Your task to perform on an android device: add a contact Image 0: 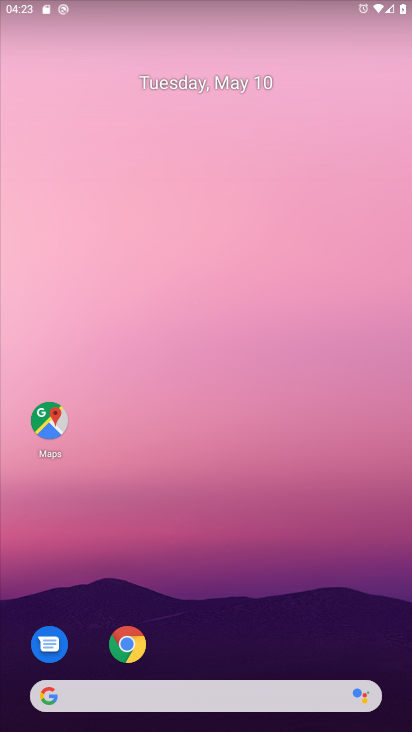
Step 0: drag from (222, 650) to (203, 265)
Your task to perform on an android device: add a contact Image 1: 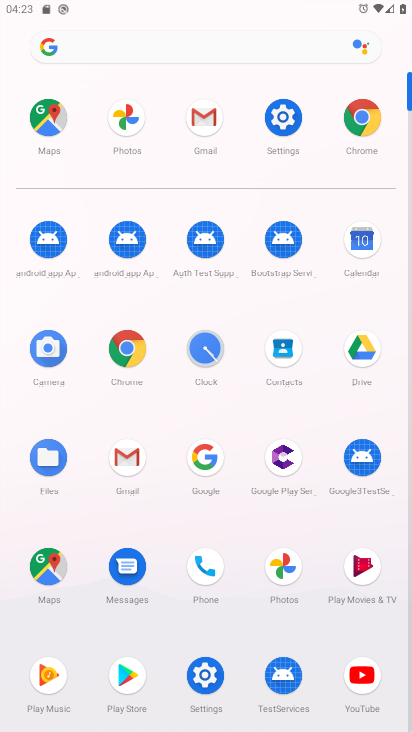
Step 1: click (279, 345)
Your task to perform on an android device: add a contact Image 2: 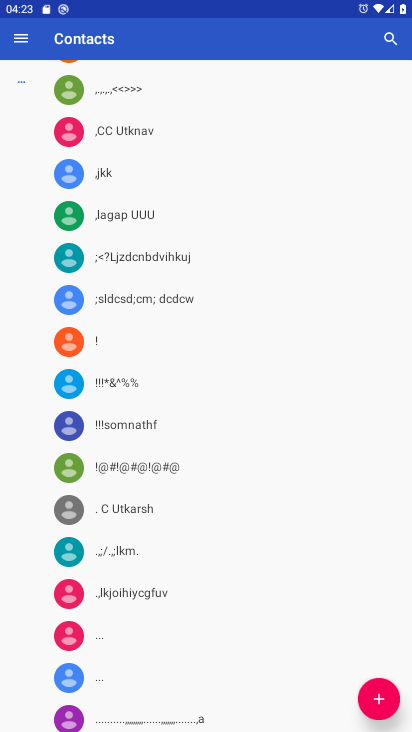
Step 2: click (374, 696)
Your task to perform on an android device: add a contact Image 3: 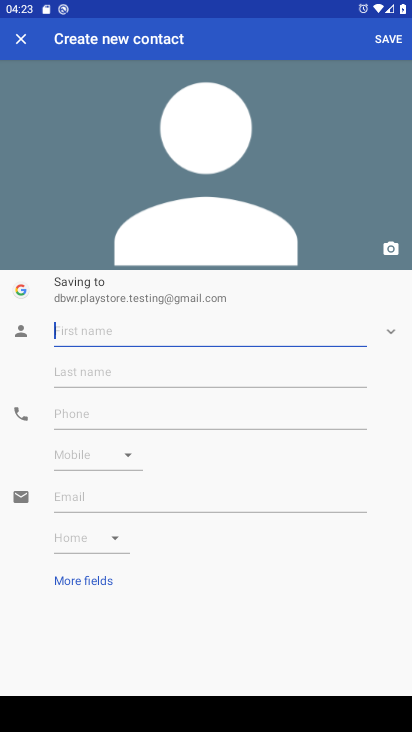
Step 3: type "mnghtsthg"
Your task to perform on an android device: add a contact Image 4: 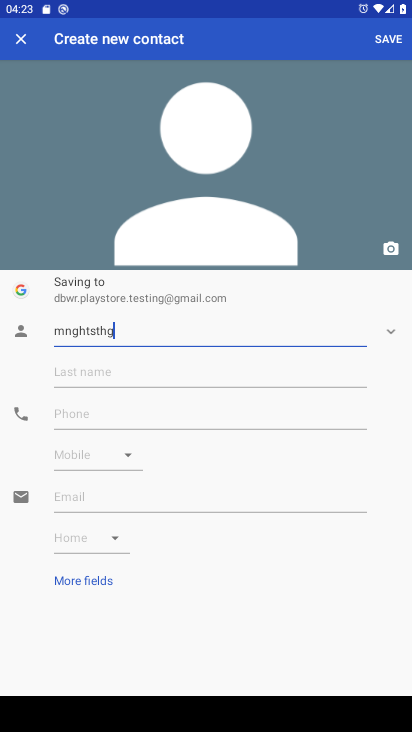
Step 4: click (387, 30)
Your task to perform on an android device: add a contact Image 5: 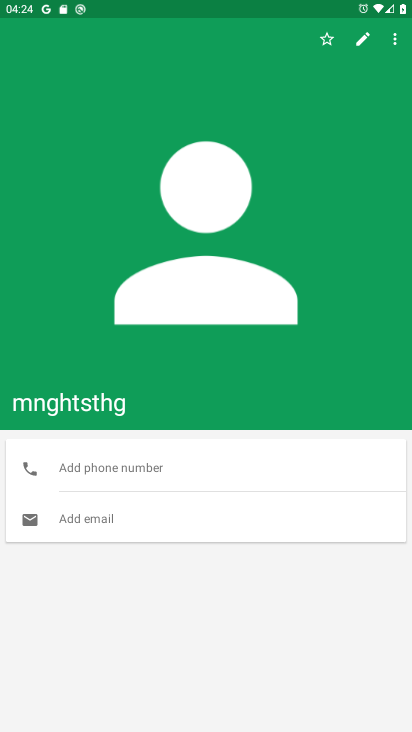
Step 5: task complete